Your task to perform on an android device: Search for pizza restaurants on Maps Image 0: 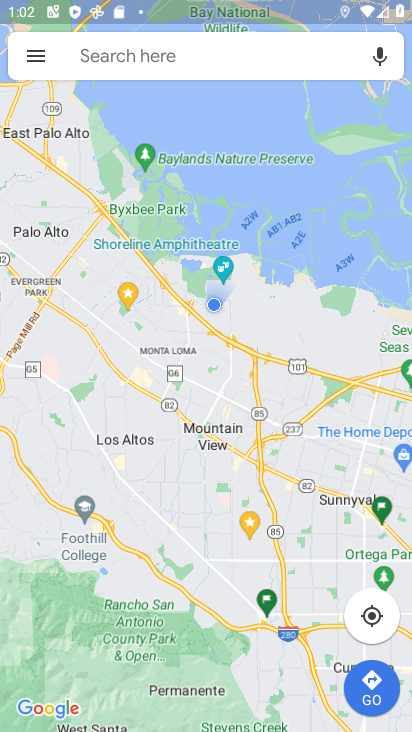
Step 0: press home button
Your task to perform on an android device: Search for pizza restaurants on Maps Image 1: 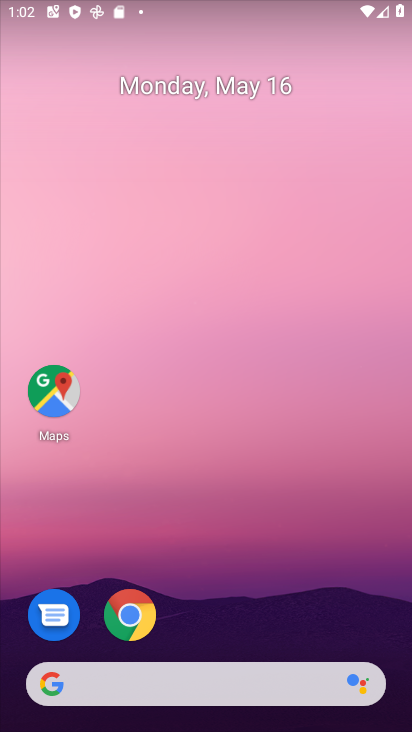
Step 1: drag from (141, 708) to (69, 202)
Your task to perform on an android device: Search for pizza restaurants on Maps Image 2: 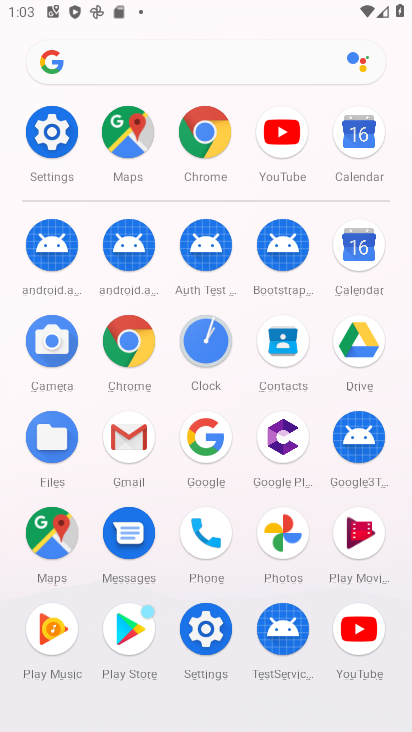
Step 2: click (142, 333)
Your task to perform on an android device: Search for pizza restaurants on Maps Image 3: 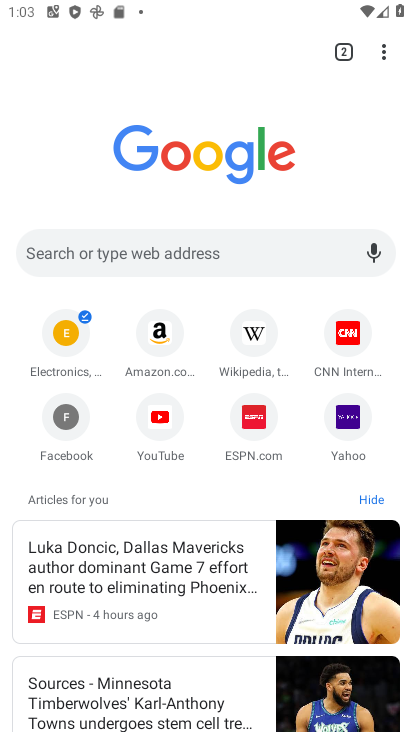
Step 3: press home button
Your task to perform on an android device: Search for pizza restaurants on Maps Image 4: 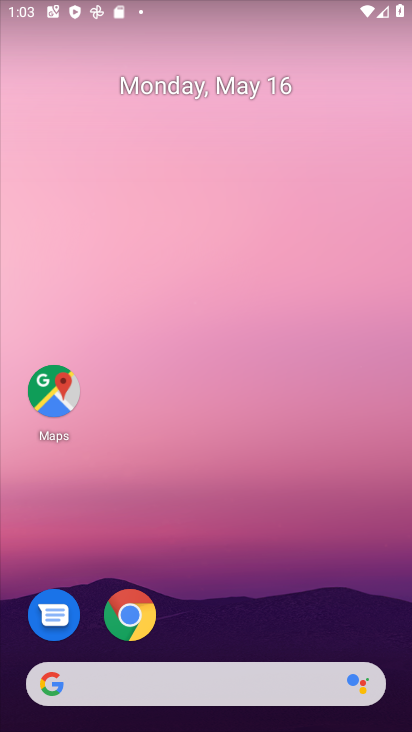
Step 4: drag from (100, 618) to (71, 247)
Your task to perform on an android device: Search for pizza restaurants on Maps Image 5: 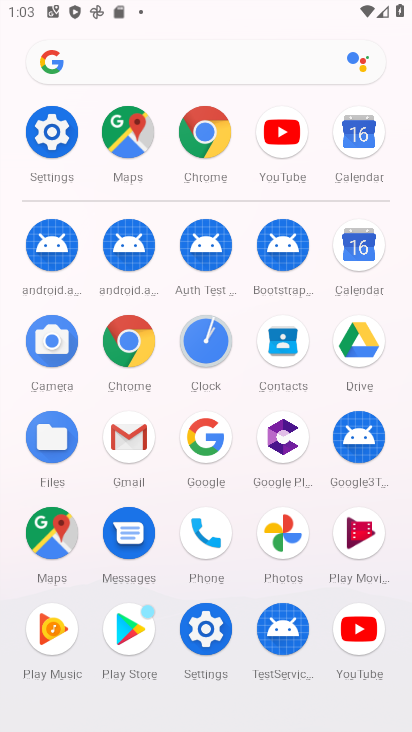
Step 5: drag from (95, 567) to (127, 310)
Your task to perform on an android device: Search for pizza restaurants on Maps Image 6: 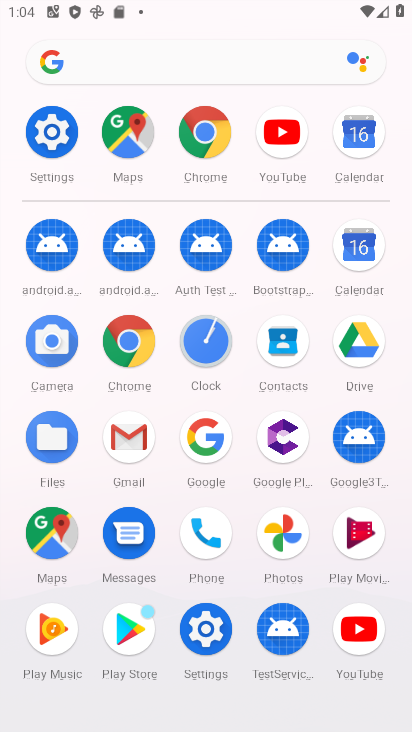
Step 6: click (30, 523)
Your task to perform on an android device: Search for pizza restaurants on Maps Image 7: 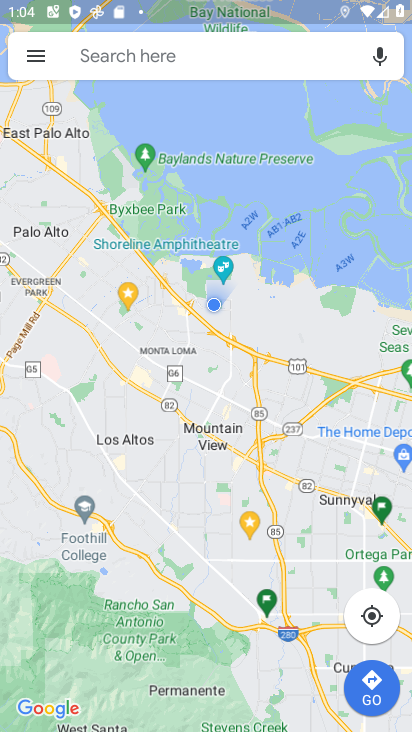
Step 7: click (120, 55)
Your task to perform on an android device: Search for pizza restaurants on Maps Image 8: 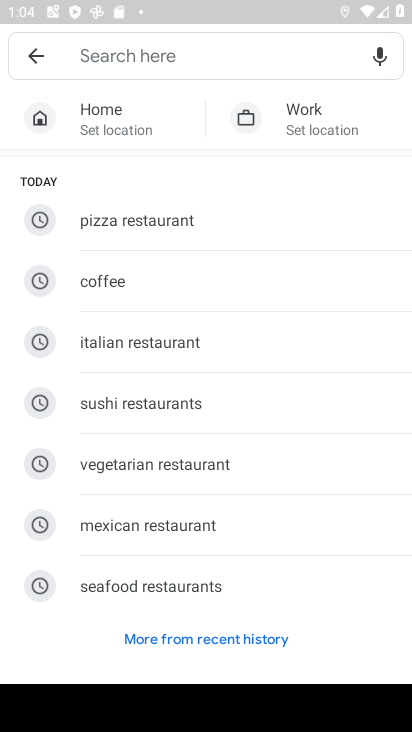
Step 8: click (124, 218)
Your task to perform on an android device: Search for pizza restaurants on Maps Image 9: 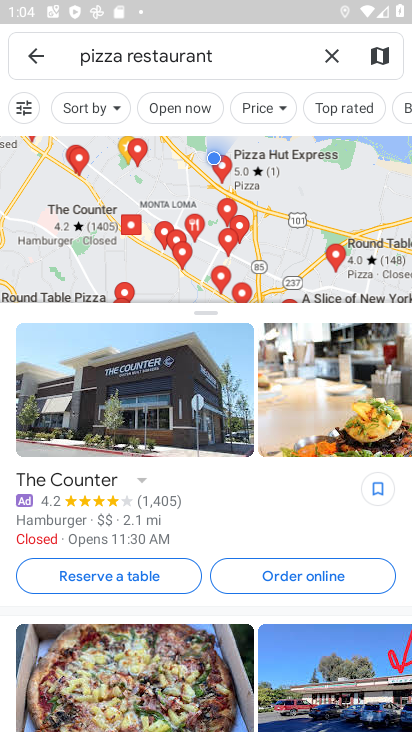
Step 9: task complete